Your task to perform on an android device: Open Google Image 0: 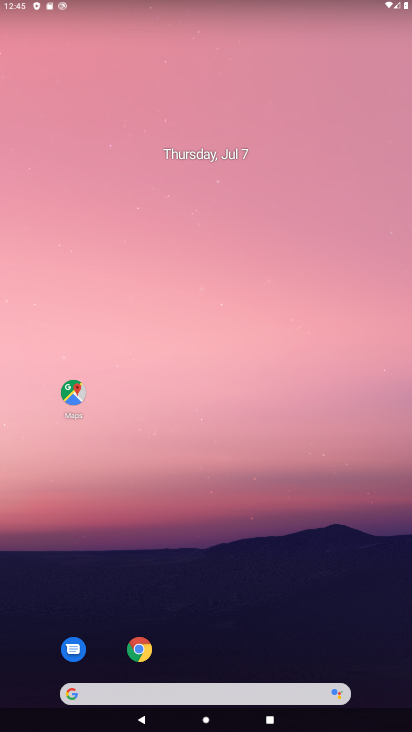
Step 0: click (226, 682)
Your task to perform on an android device: Open Google Image 1: 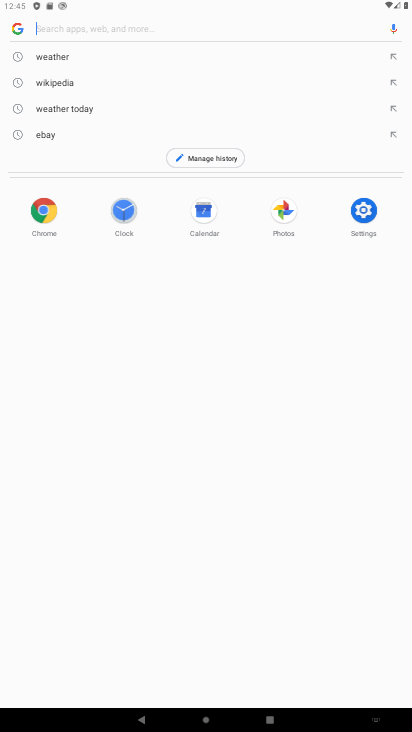
Step 1: task complete